Your task to perform on an android device: Open calendar and show me the first week of next month Image 0: 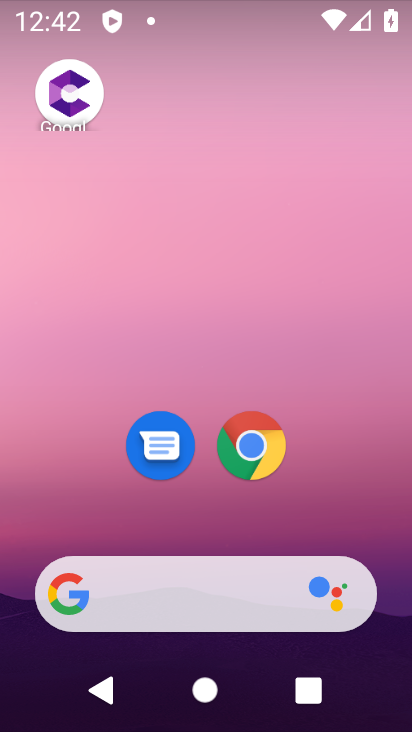
Step 0: drag from (383, 589) to (336, 197)
Your task to perform on an android device: Open calendar and show me the first week of next month Image 1: 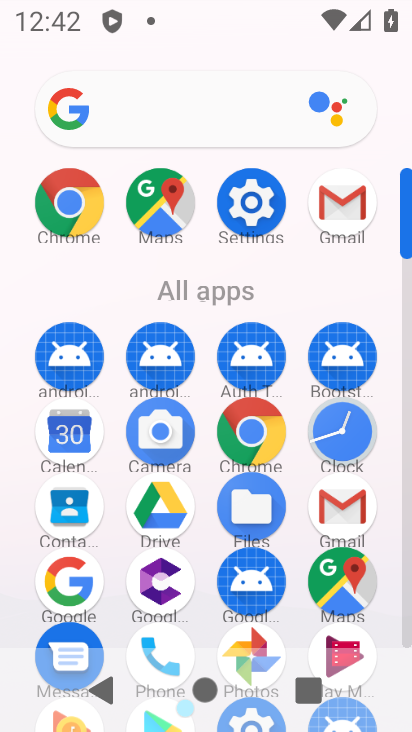
Step 1: click (404, 622)
Your task to perform on an android device: Open calendar and show me the first week of next month Image 2: 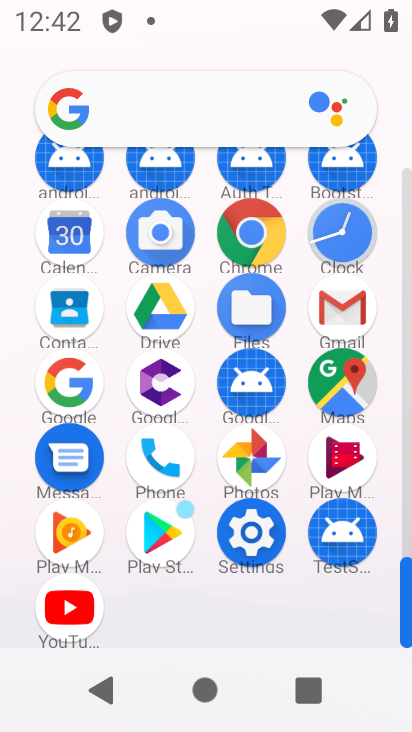
Step 2: click (68, 235)
Your task to perform on an android device: Open calendar and show me the first week of next month Image 3: 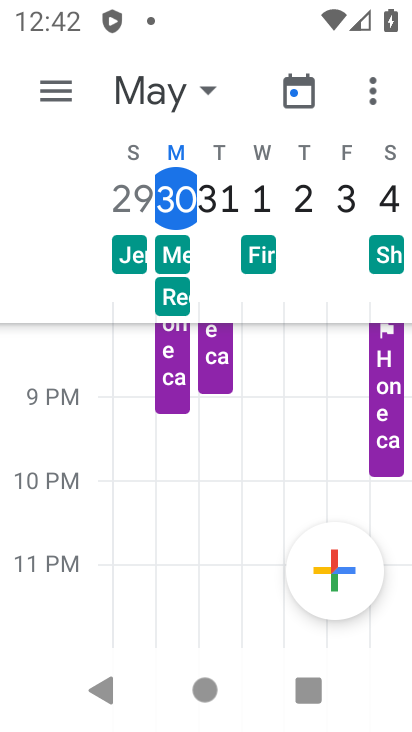
Step 3: click (205, 89)
Your task to perform on an android device: Open calendar and show me the first week of next month Image 4: 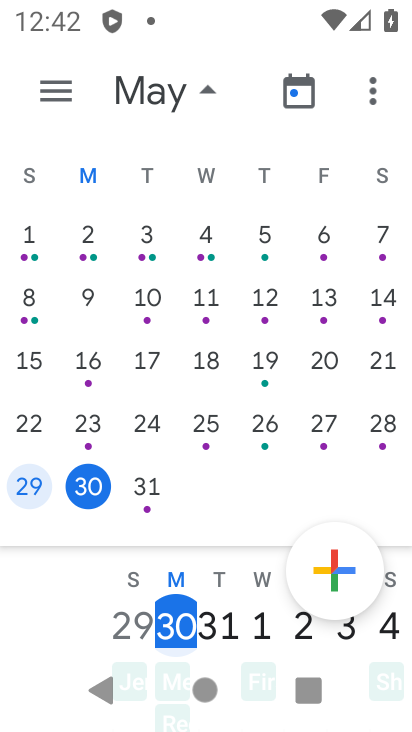
Step 4: drag from (378, 309) to (62, 268)
Your task to perform on an android device: Open calendar and show me the first week of next month Image 5: 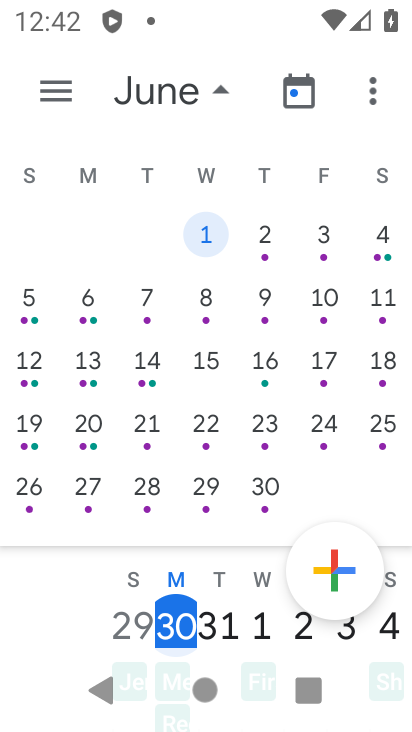
Step 5: click (23, 299)
Your task to perform on an android device: Open calendar and show me the first week of next month Image 6: 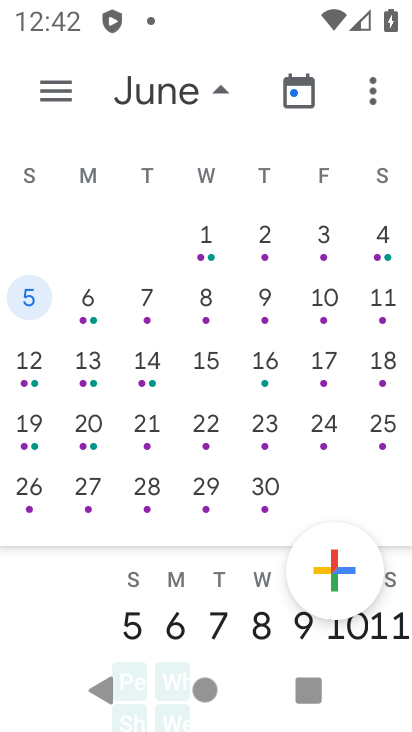
Step 6: task complete